Your task to perform on an android device: What is the recent news? Image 0: 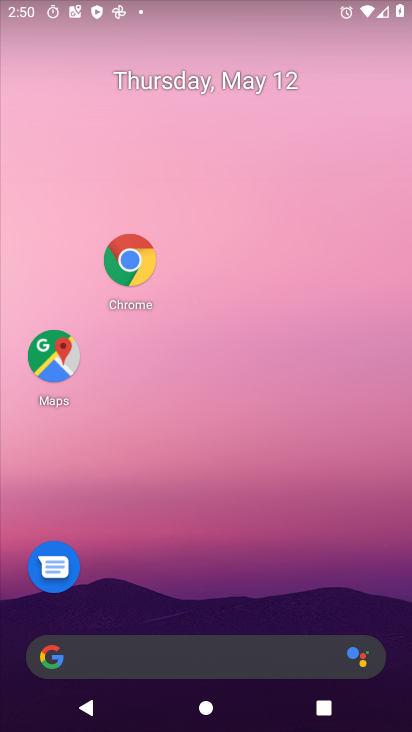
Step 0: drag from (197, 633) to (184, 283)
Your task to perform on an android device: What is the recent news? Image 1: 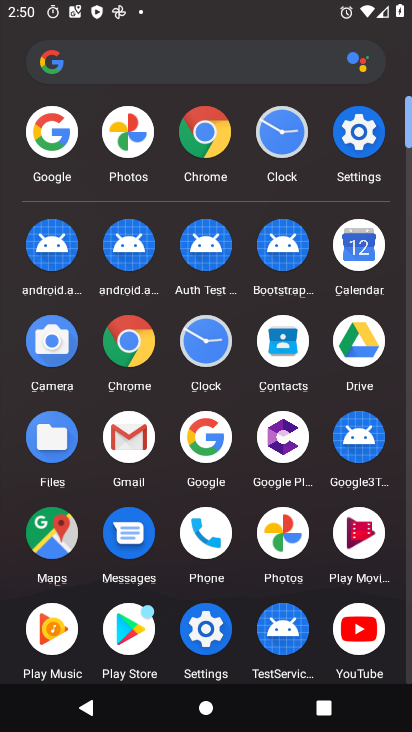
Step 1: click (40, 144)
Your task to perform on an android device: What is the recent news? Image 2: 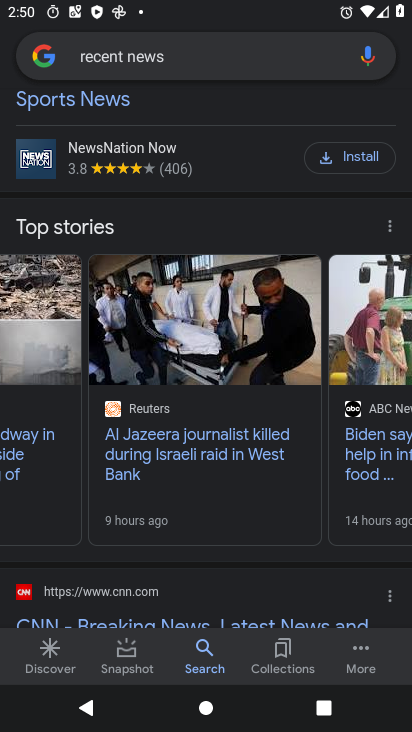
Step 2: task complete